Your task to perform on an android device: see sites visited before in the chrome app Image 0: 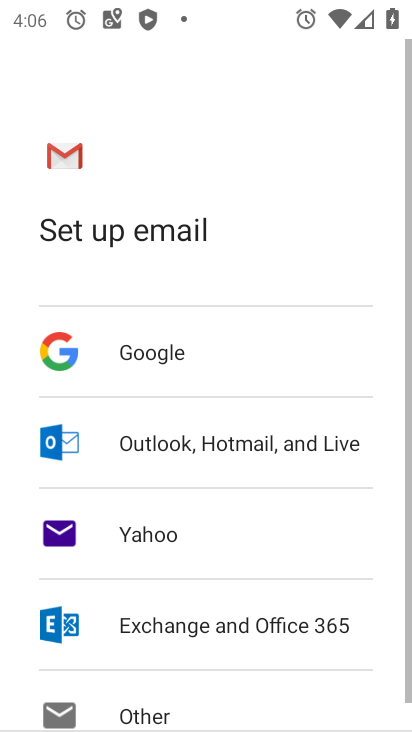
Step 0: press home button
Your task to perform on an android device: see sites visited before in the chrome app Image 1: 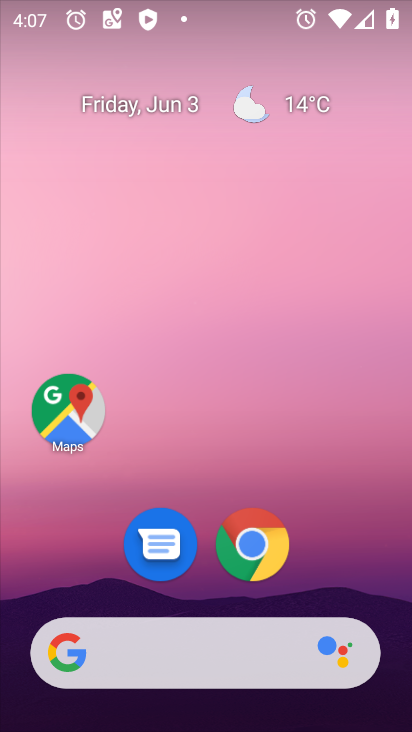
Step 1: click (252, 546)
Your task to perform on an android device: see sites visited before in the chrome app Image 2: 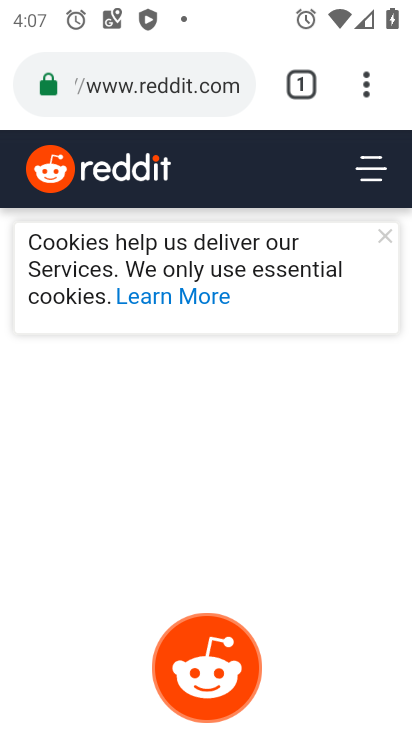
Step 2: click (364, 81)
Your task to perform on an android device: see sites visited before in the chrome app Image 3: 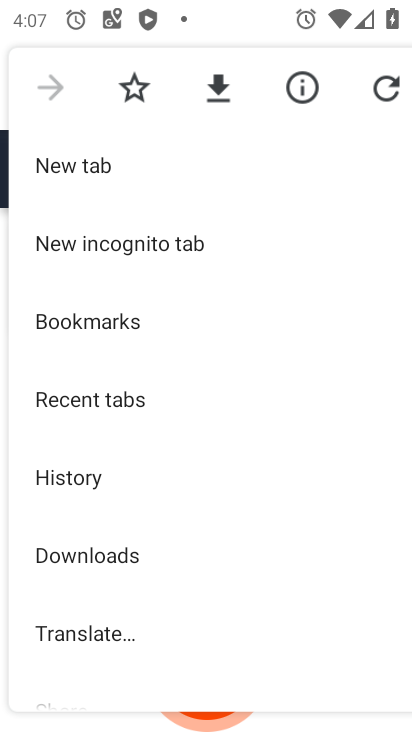
Step 3: click (88, 409)
Your task to perform on an android device: see sites visited before in the chrome app Image 4: 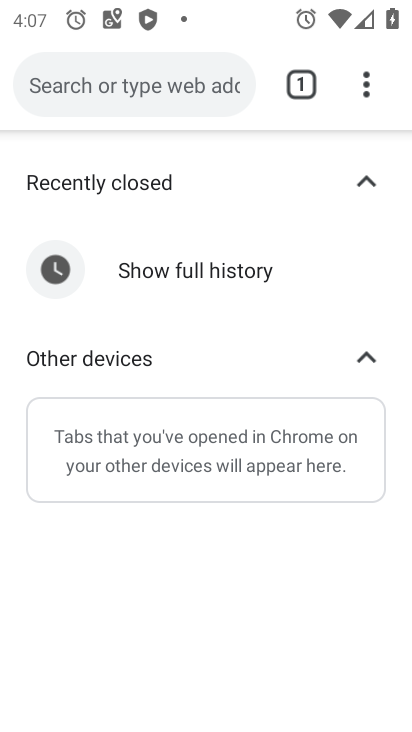
Step 4: task complete